Your task to perform on an android device: visit the assistant section in the google photos Image 0: 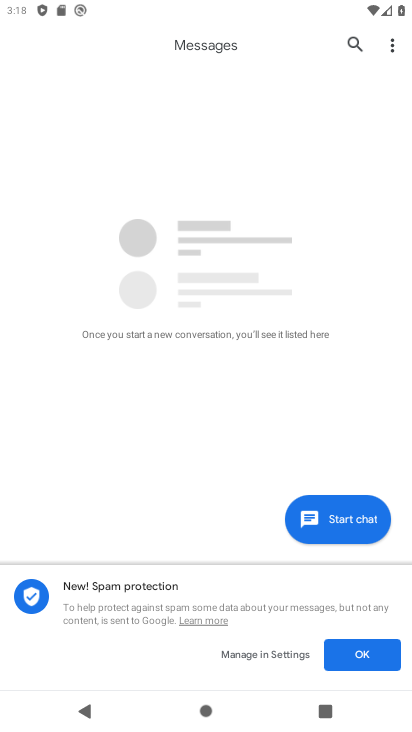
Step 0: press home button
Your task to perform on an android device: visit the assistant section in the google photos Image 1: 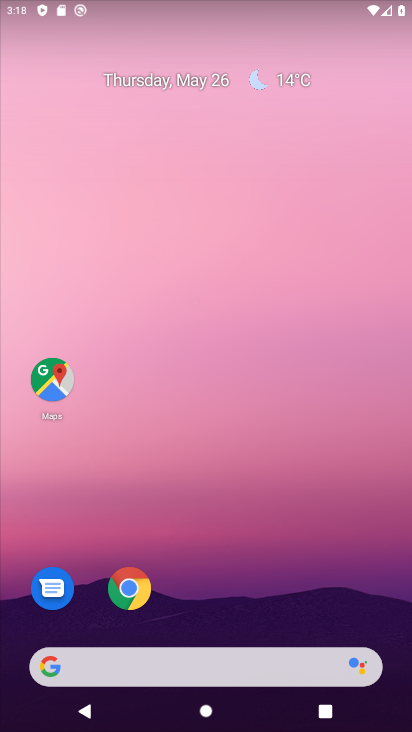
Step 1: drag from (304, 603) to (294, 111)
Your task to perform on an android device: visit the assistant section in the google photos Image 2: 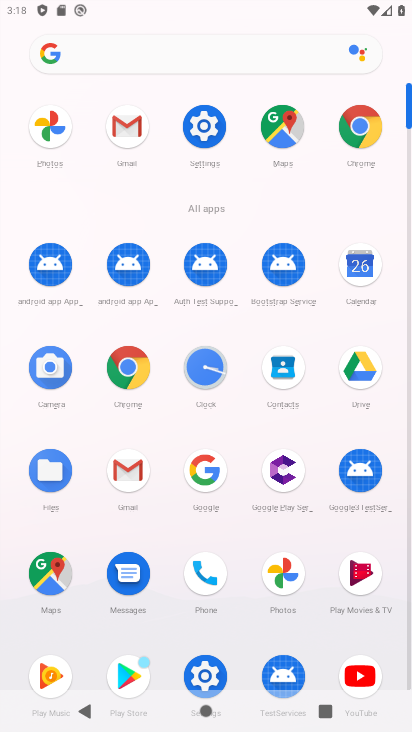
Step 2: click (295, 583)
Your task to perform on an android device: visit the assistant section in the google photos Image 3: 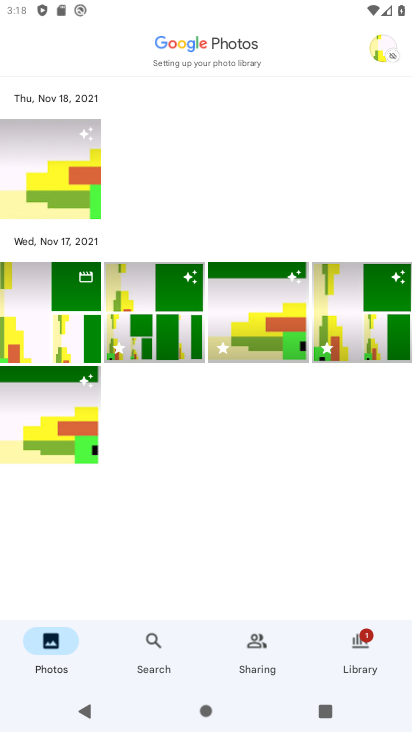
Step 3: click (380, 645)
Your task to perform on an android device: visit the assistant section in the google photos Image 4: 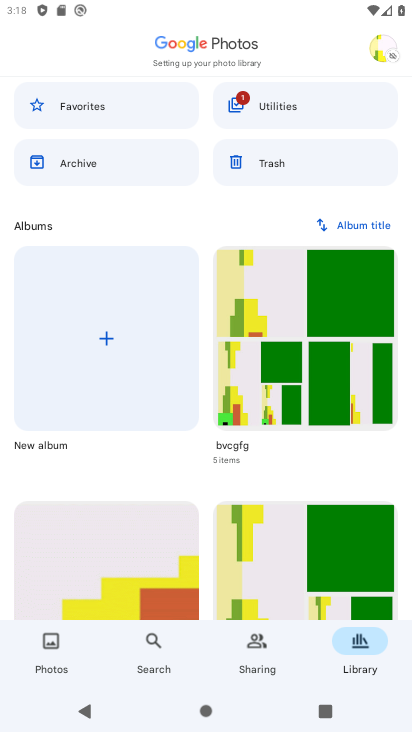
Step 4: click (258, 105)
Your task to perform on an android device: visit the assistant section in the google photos Image 5: 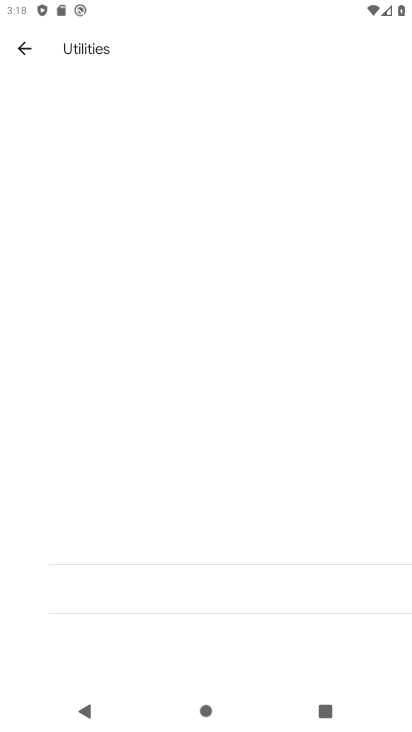
Step 5: task complete